Your task to perform on an android device: install app "Messenger Lite" Image 0: 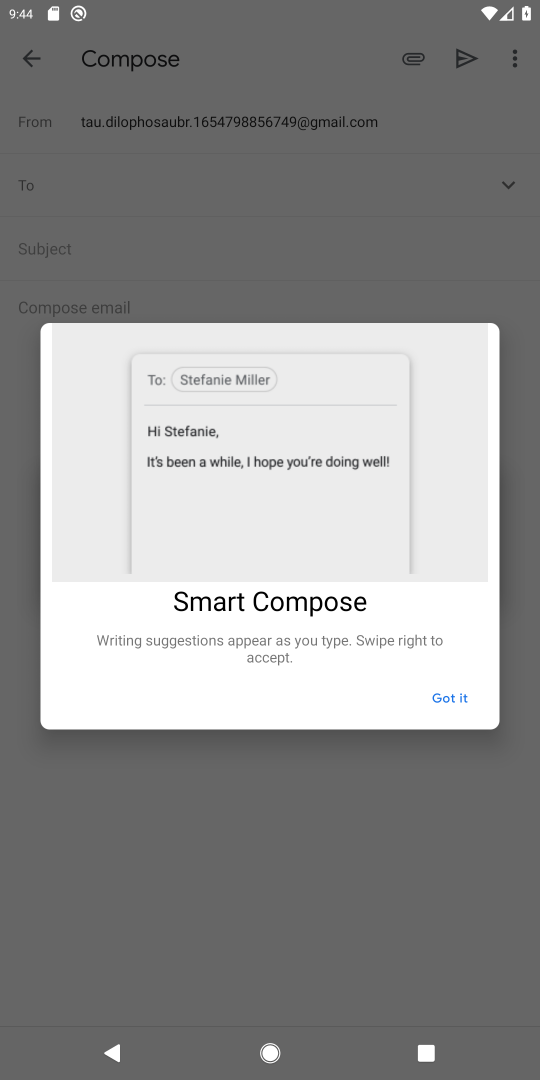
Step 0: press home button
Your task to perform on an android device: install app "Messenger Lite" Image 1: 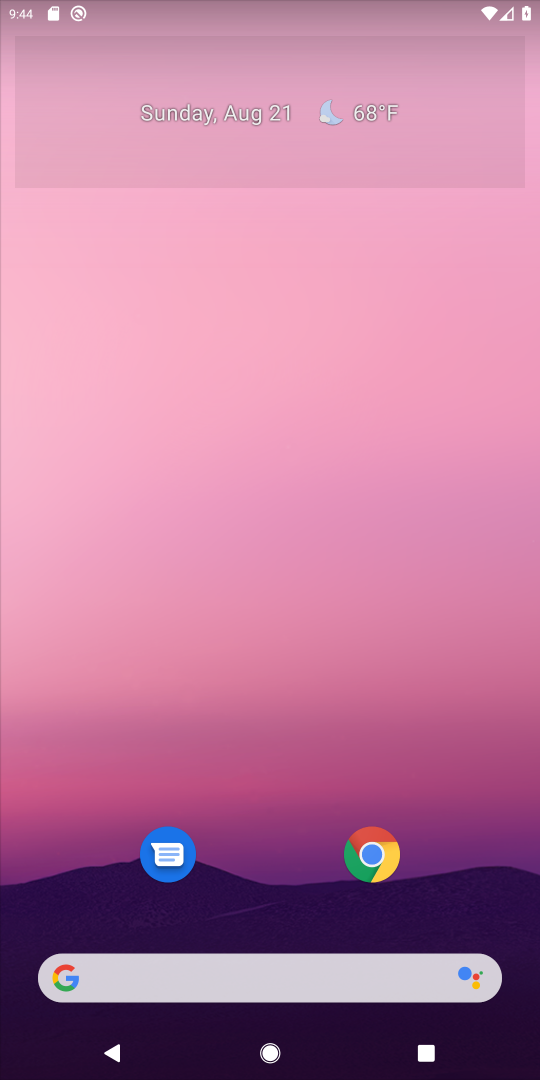
Step 1: drag from (290, 924) to (303, 259)
Your task to perform on an android device: install app "Messenger Lite" Image 2: 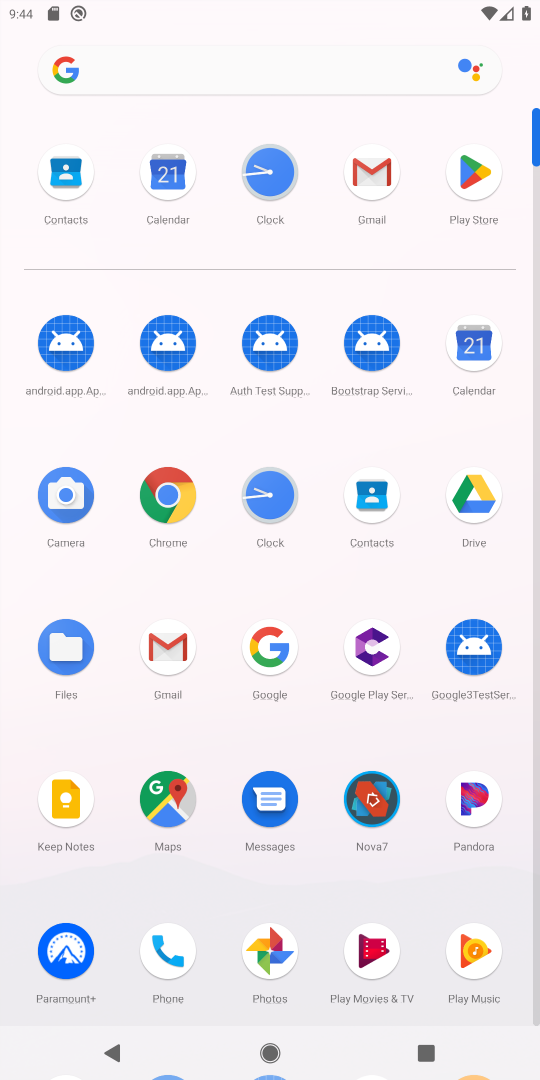
Step 2: click (474, 185)
Your task to perform on an android device: install app "Messenger Lite" Image 3: 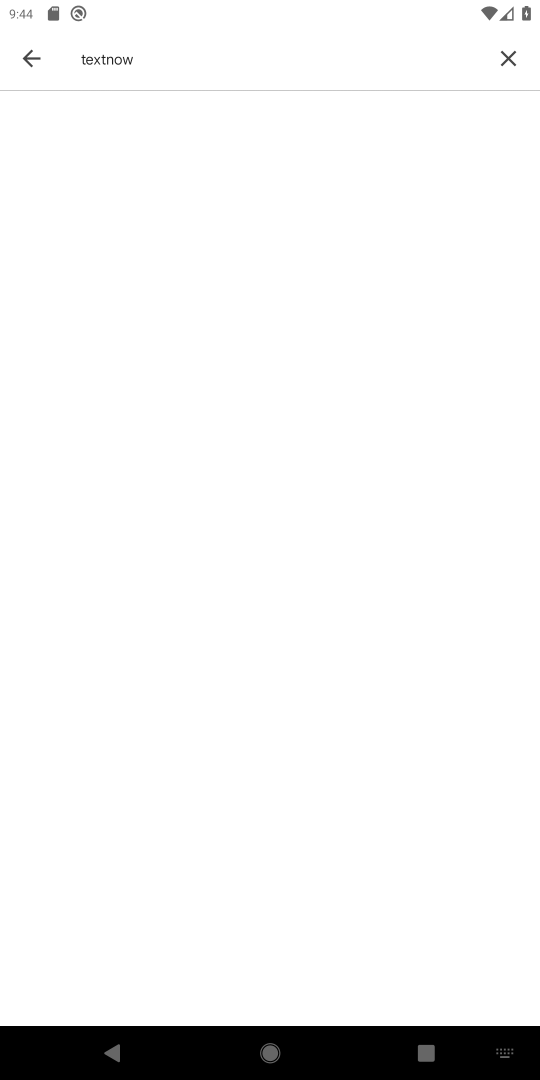
Step 3: click (504, 65)
Your task to perform on an android device: install app "Messenger Lite" Image 4: 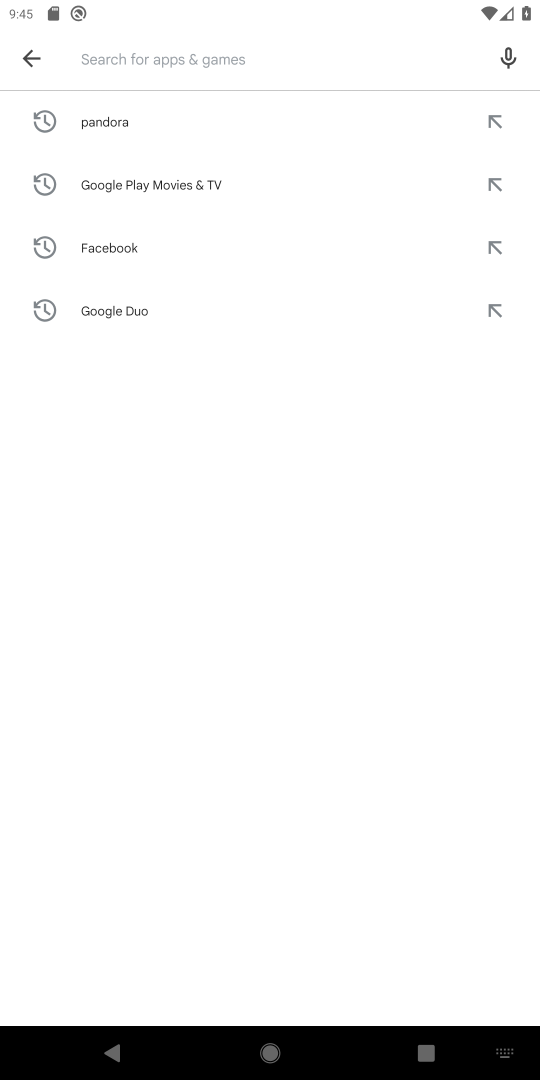
Step 4: type "messanger"
Your task to perform on an android device: install app "Messenger Lite" Image 5: 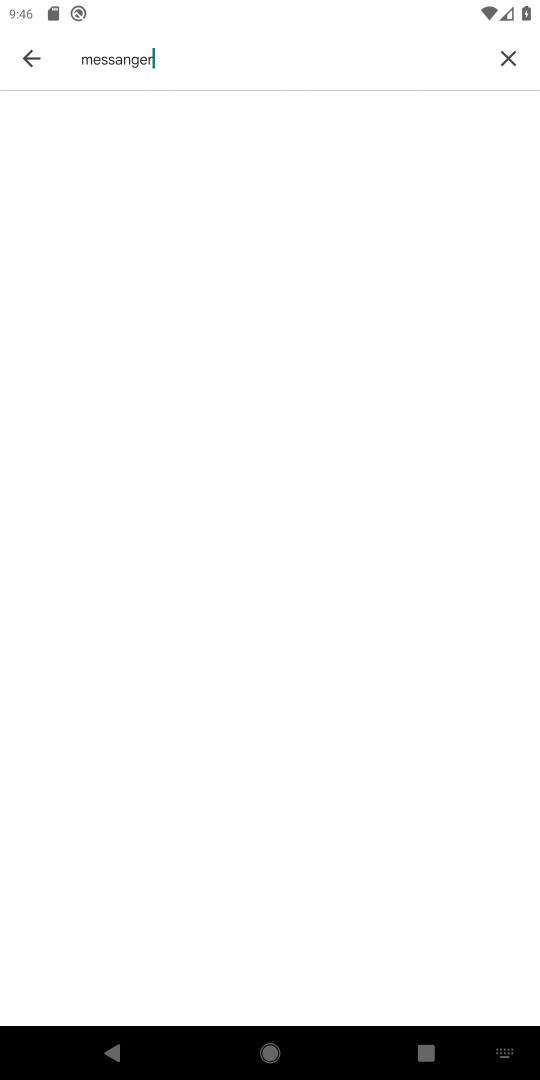
Step 5: task complete